Your task to perform on an android device: change the clock style Image 0: 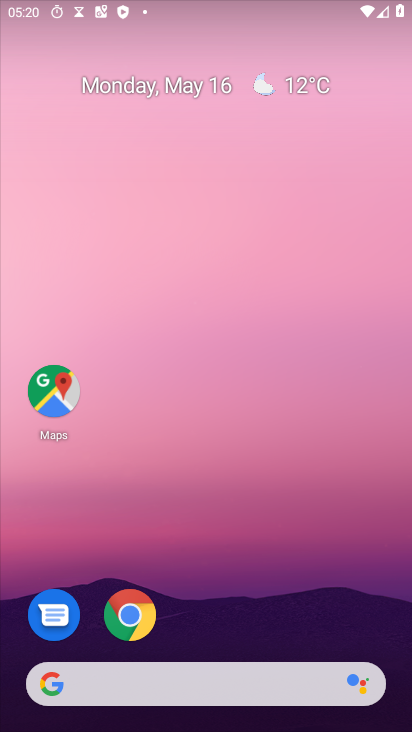
Step 0: drag from (238, 670) to (109, 160)
Your task to perform on an android device: change the clock style Image 1: 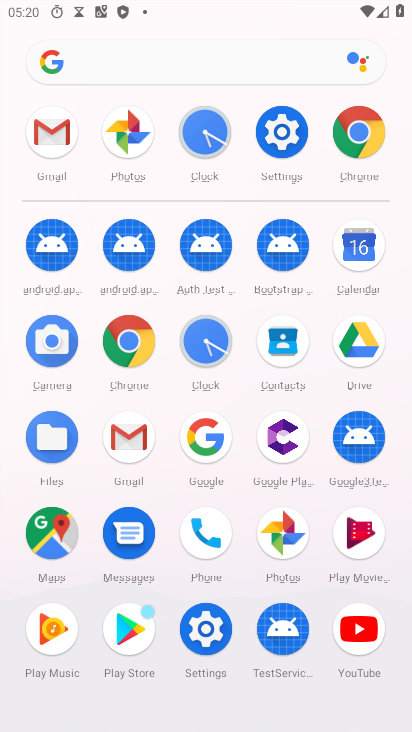
Step 1: click (200, 329)
Your task to perform on an android device: change the clock style Image 2: 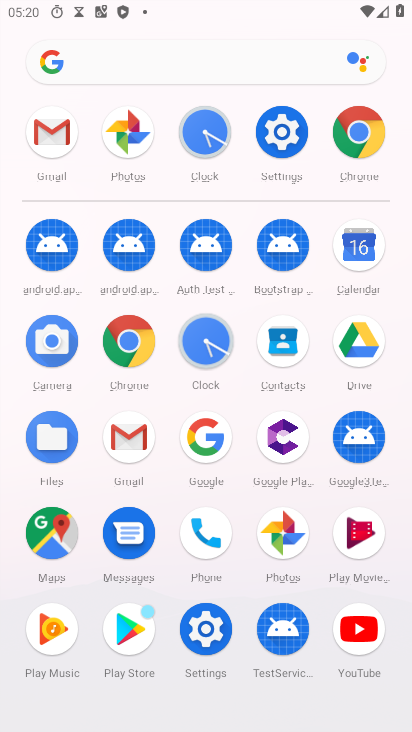
Step 2: click (207, 328)
Your task to perform on an android device: change the clock style Image 3: 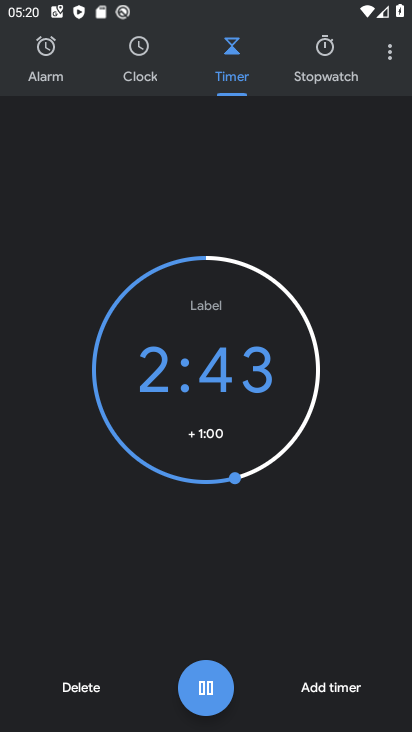
Step 3: click (387, 62)
Your task to perform on an android device: change the clock style Image 4: 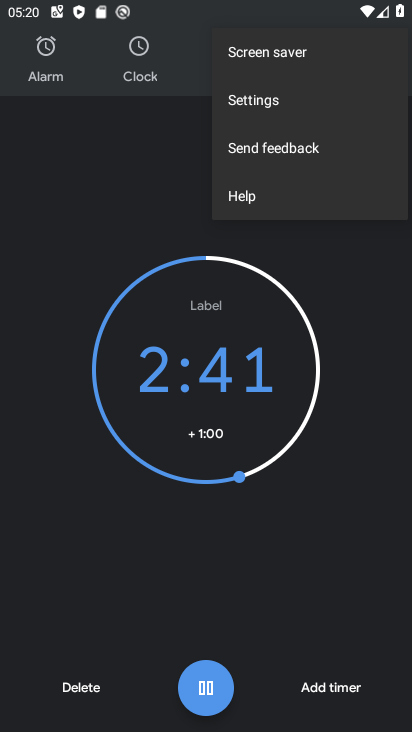
Step 4: click (249, 93)
Your task to perform on an android device: change the clock style Image 5: 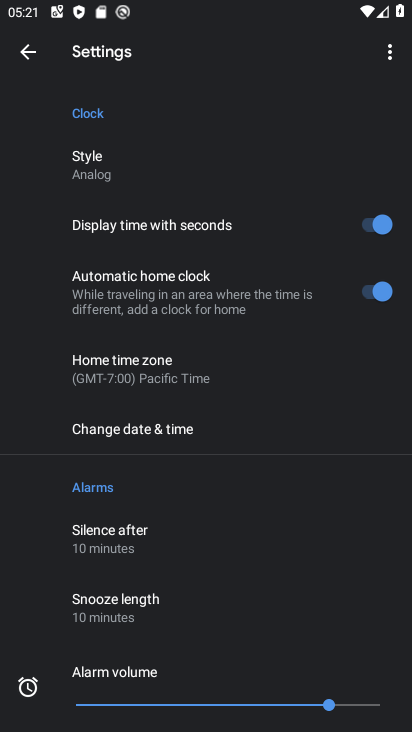
Step 5: drag from (163, 158) to (198, 172)
Your task to perform on an android device: change the clock style Image 6: 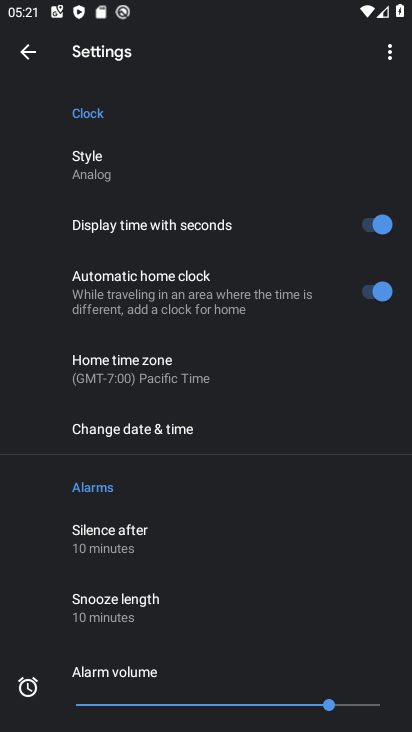
Step 6: click (176, 152)
Your task to perform on an android device: change the clock style Image 7: 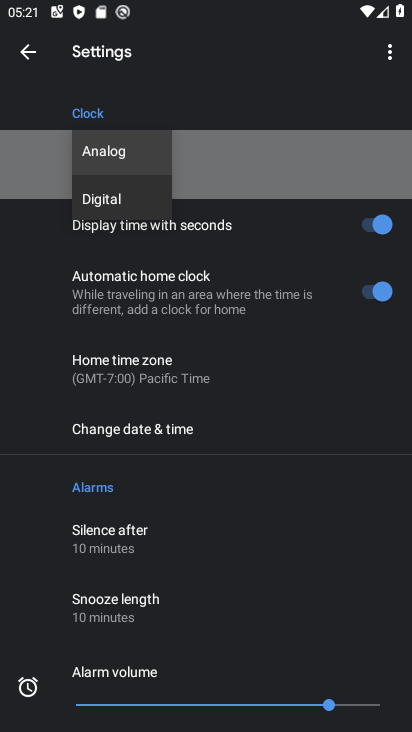
Step 7: click (176, 152)
Your task to perform on an android device: change the clock style Image 8: 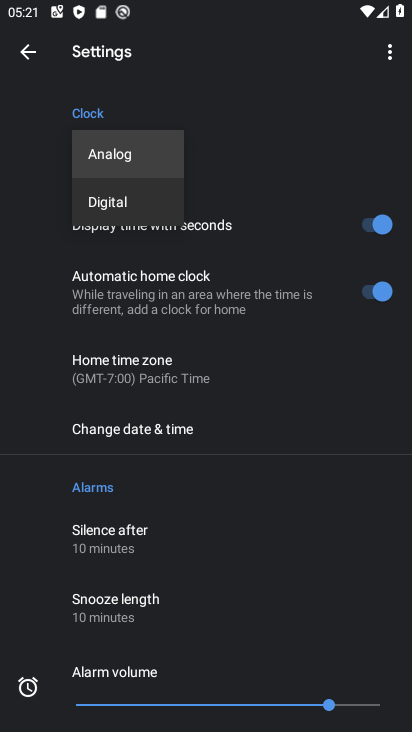
Step 8: click (176, 154)
Your task to perform on an android device: change the clock style Image 9: 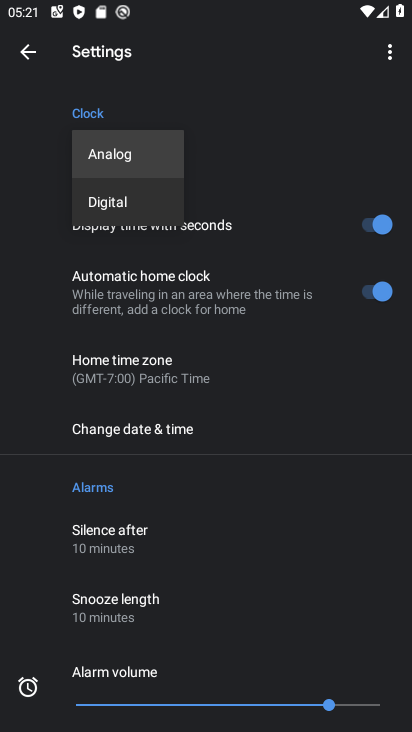
Step 9: click (109, 196)
Your task to perform on an android device: change the clock style Image 10: 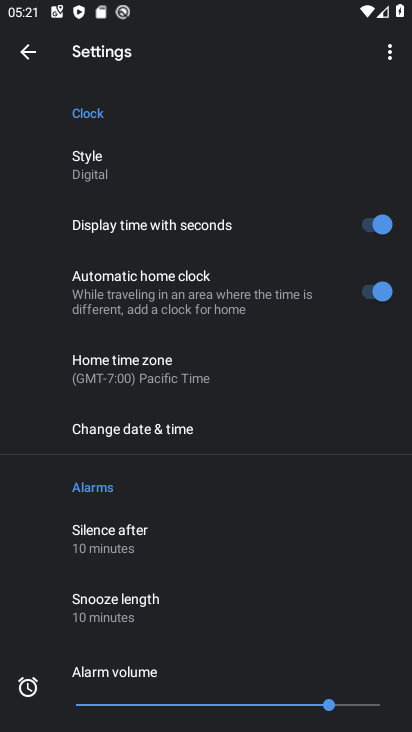
Step 10: click (134, 156)
Your task to perform on an android device: change the clock style Image 11: 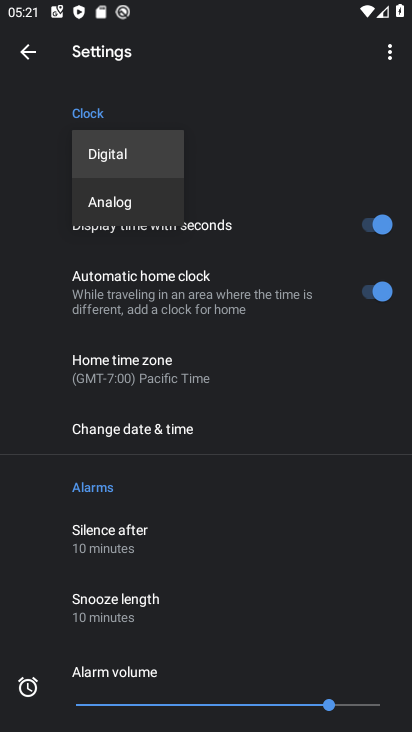
Step 11: click (129, 199)
Your task to perform on an android device: change the clock style Image 12: 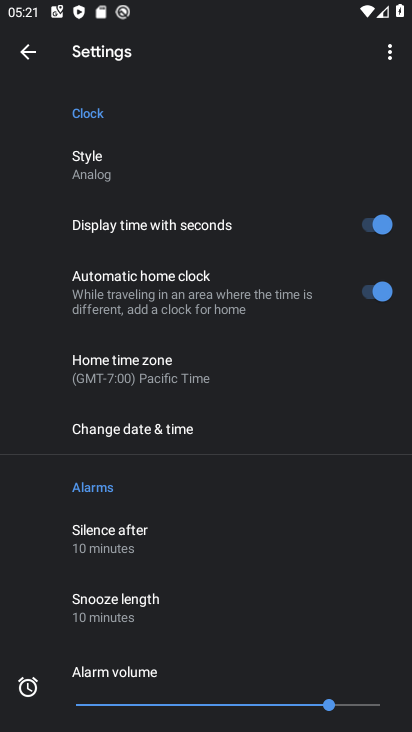
Step 12: task complete